Your task to perform on an android device: find photos in the google photos app Image 0: 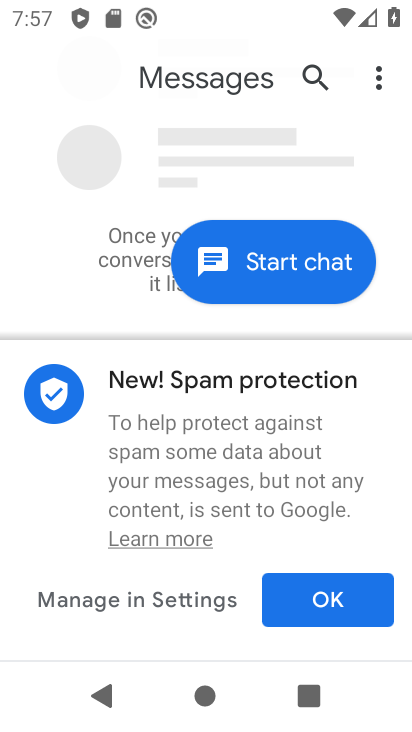
Step 0: click (304, 589)
Your task to perform on an android device: find photos in the google photos app Image 1: 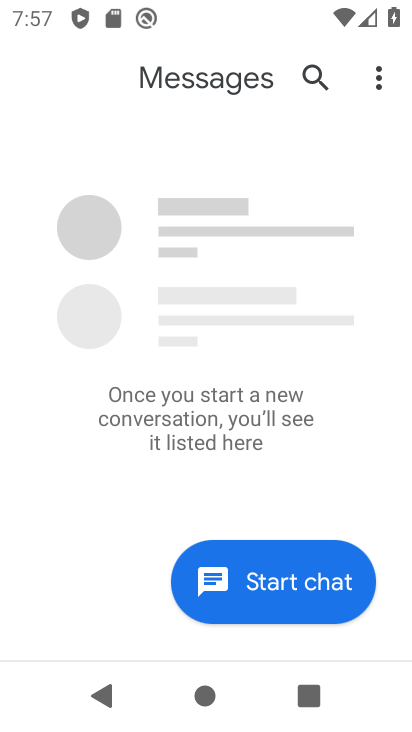
Step 1: press back button
Your task to perform on an android device: find photos in the google photos app Image 2: 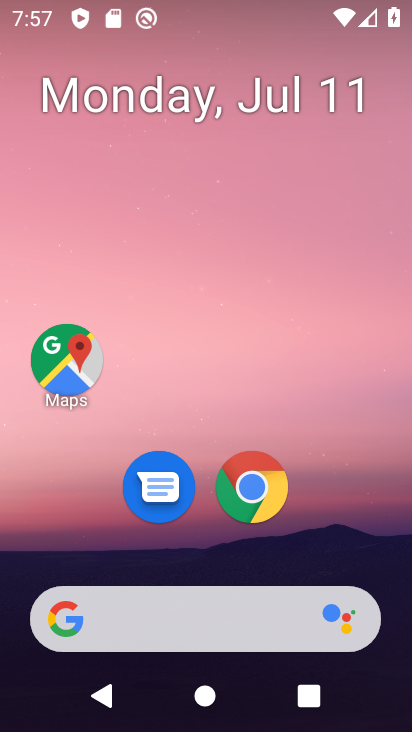
Step 2: drag from (174, 540) to (338, 7)
Your task to perform on an android device: find photos in the google photos app Image 3: 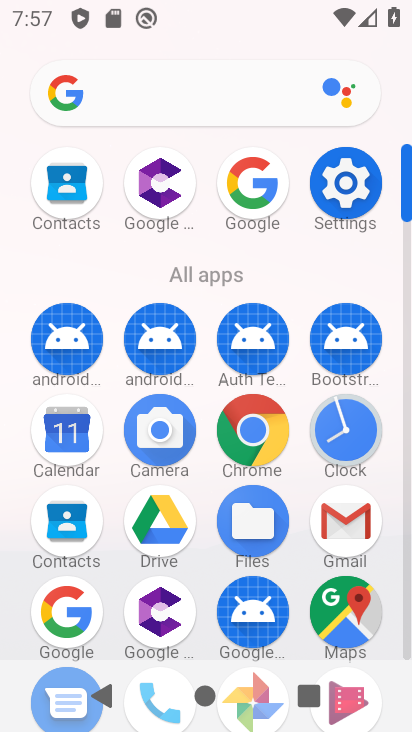
Step 3: drag from (221, 603) to (242, 80)
Your task to perform on an android device: find photos in the google photos app Image 4: 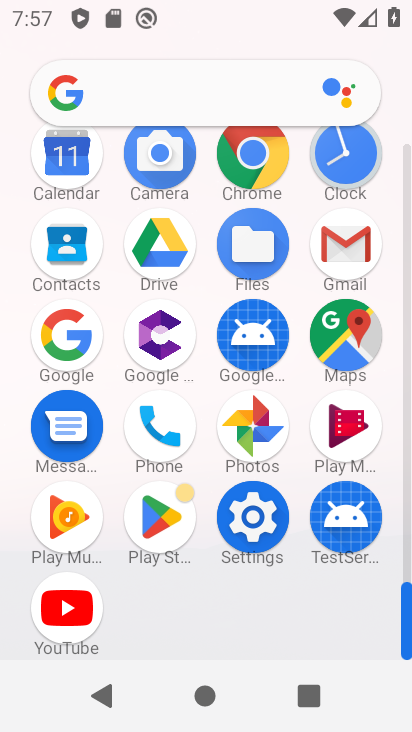
Step 4: click (253, 430)
Your task to perform on an android device: find photos in the google photos app Image 5: 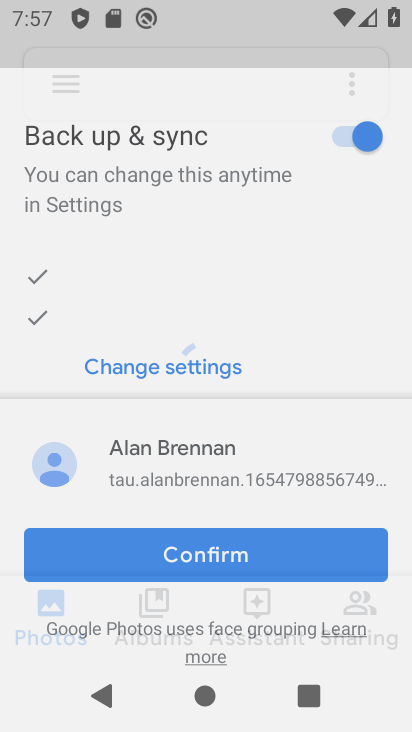
Step 5: click (43, 596)
Your task to perform on an android device: find photos in the google photos app Image 6: 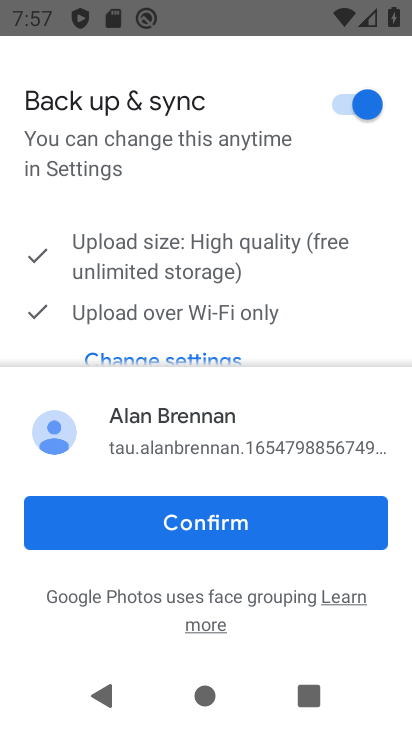
Step 6: click (118, 510)
Your task to perform on an android device: find photos in the google photos app Image 7: 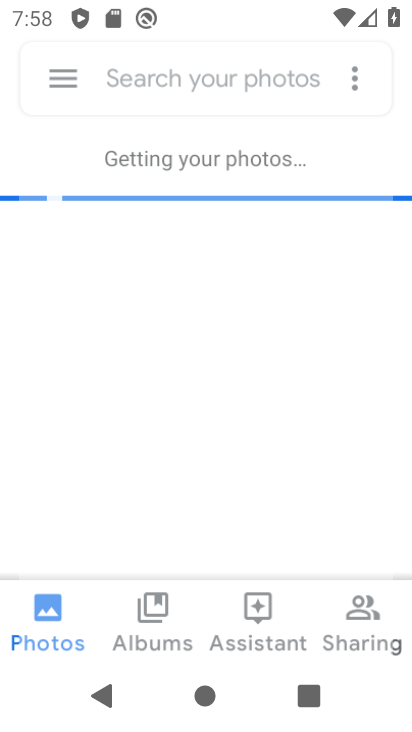
Step 7: task complete